Your task to perform on an android device: turn off priority inbox in the gmail app Image 0: 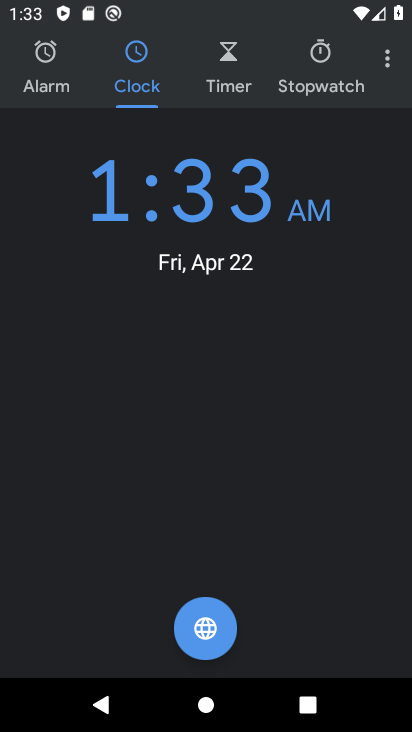
Step 0: press home button
Your task to perform on an android device: turn off priority inbox in the gmail app Image 1: 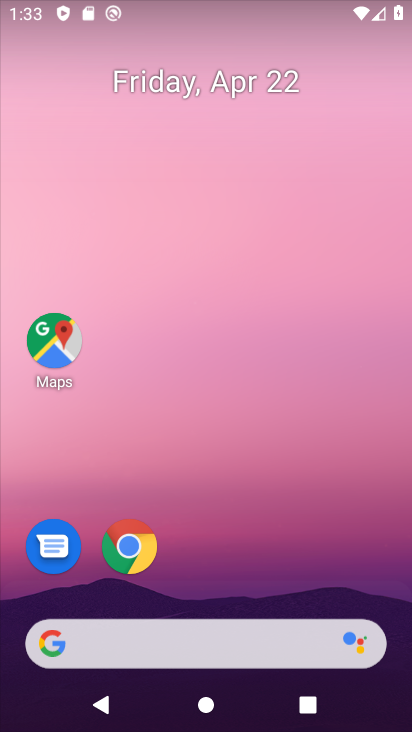
Step 1: drag from (286, 550) to (268, 9)
Your task to perform on an android device: turn off priority inbox in the gmail app Image 2: 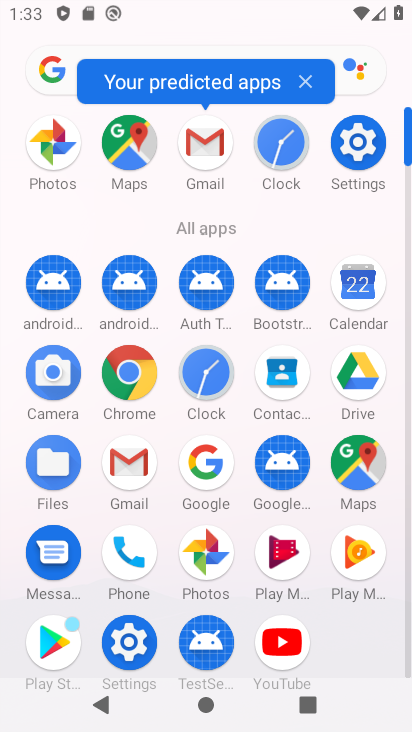
Step 2: drag from (204, 289) to (203, 183)
Your task to perform on an android device: turn off priority inbox in the gmail app Image 3: 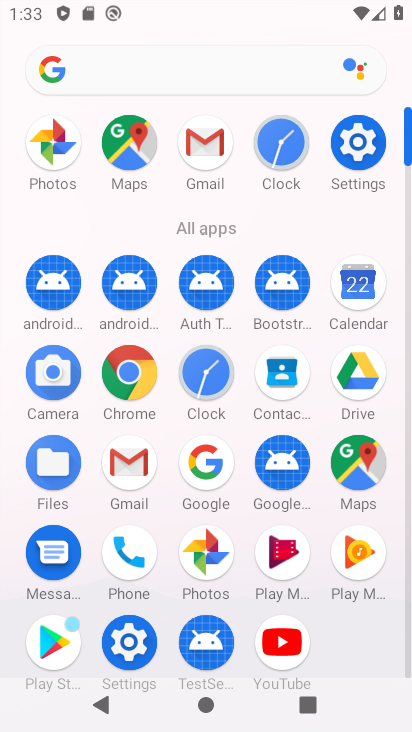
Step 3: click (134, 481)
Your task to perform on an android device: turn off priority inbox in the gmail app Image 4: 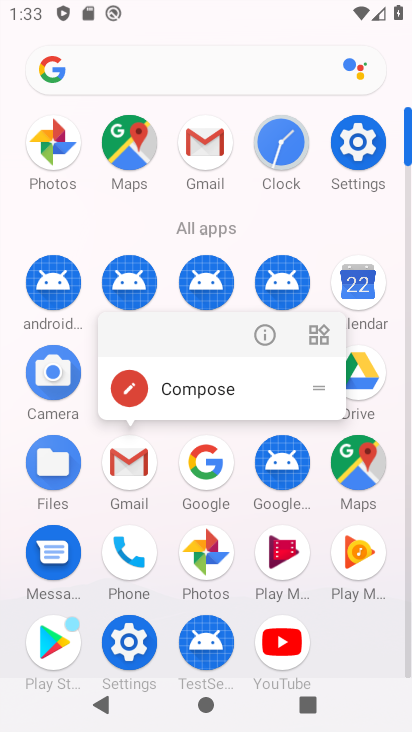
Step 4: click (134, 481)
Your task to perform on an android device: turn off priority inbox in the gmail app Image 5: 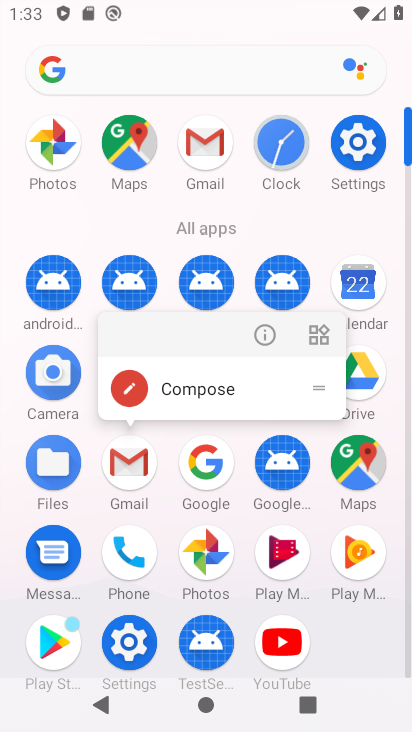
Step 5: click (133, 481)
Your task to perform on an android device: turn off priority inbox in the gmail app Image 6: 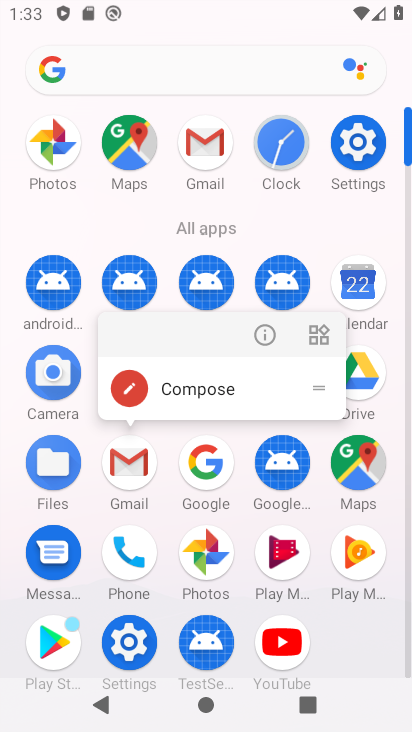
Step 6: click (133, 481)
Your task to perform on an android device: turn off priority inbox in the gmail app Image 7: 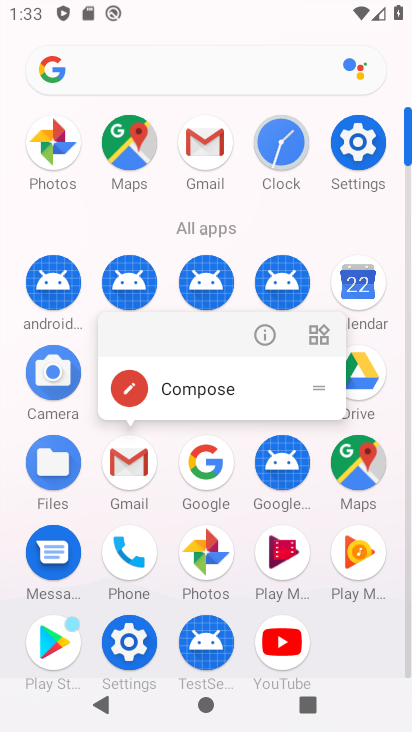
Step 7: click (126, 496)
Your task to perform on an android device: turn off priority inbox in the gmail app Image 8: 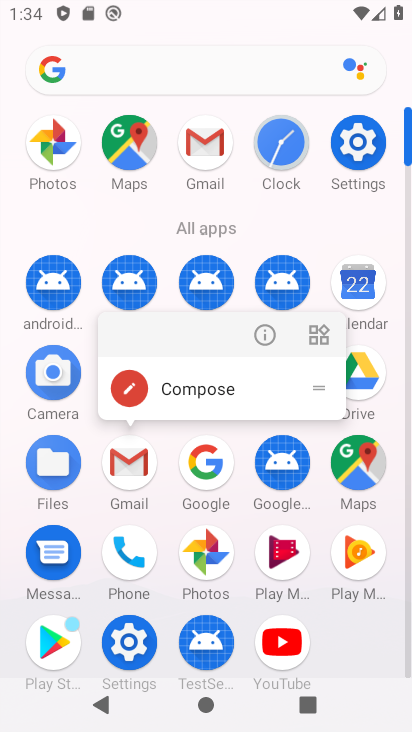
Step 8: click (129, 496)
Your task to perform on an android device: turn off priority inbox in the gmail app Image 9: 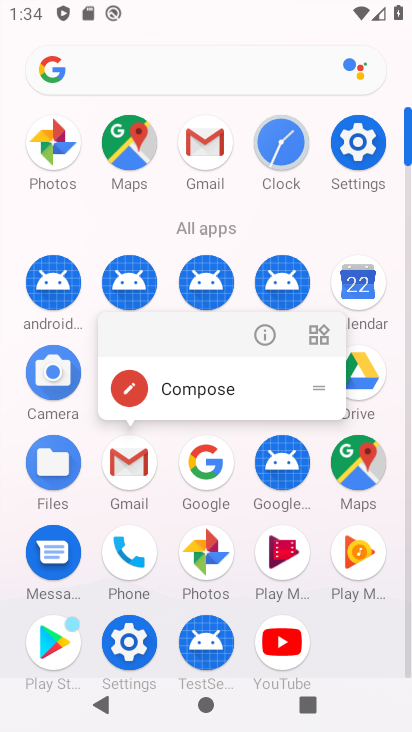
Step 9: click (137, 488)
Your task to perform on an android device: turn off priority inbox in the gmail app Image 10: 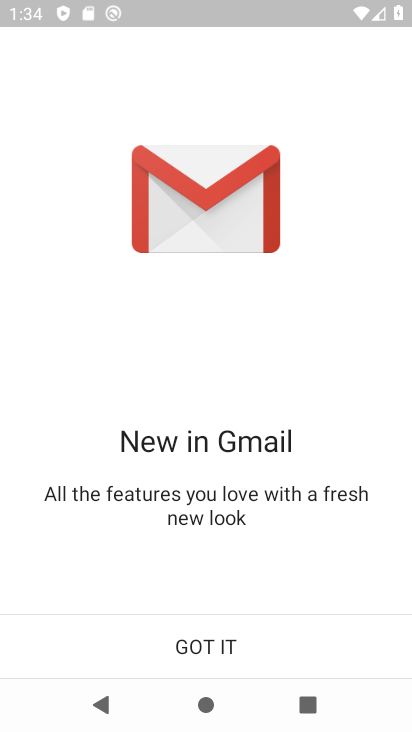
Step 10: click (221, 653)
Your task to perform on an android device: turn off priority inbox in the gmail app Image 11: 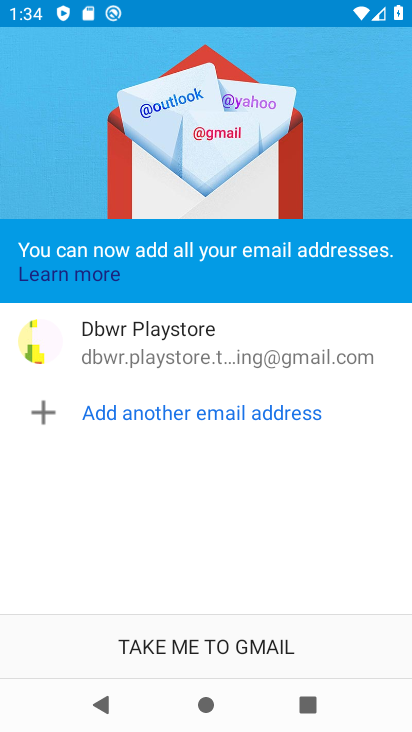
Step 11: click (241, 627)
Your task to perform on an android device: turn off priority inbox in the gmail app Image 12: 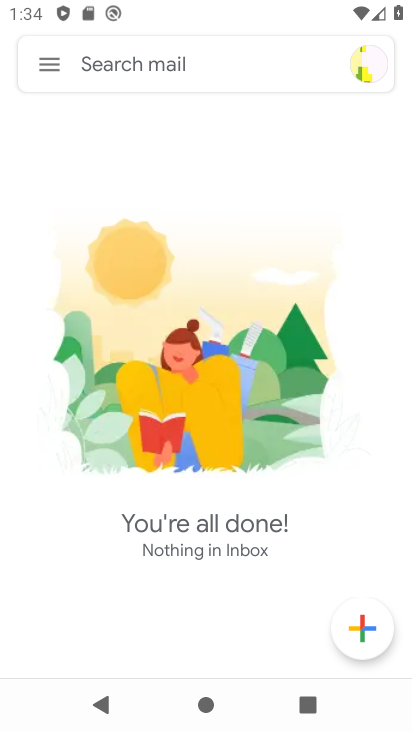
Step 12: click (53, 69)
Your task to perform on an android device: turn off priority inbox in the gmail app Image 13: 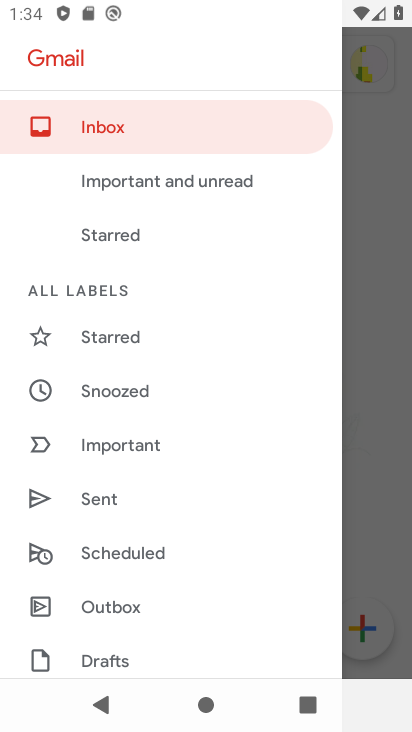
Step 13: drag from (128, 576) to (214, 162)
Your task to perform on an android device: turn off priority inbox in the gmail app Image 14: 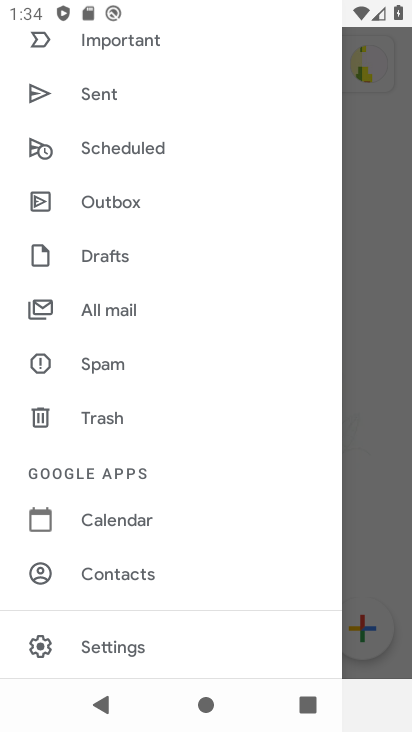
Step 14: drag from (173, 490) to (158, 279)
Your task to perform on an android device: turn off priority inbox in the gmail app Image 15: 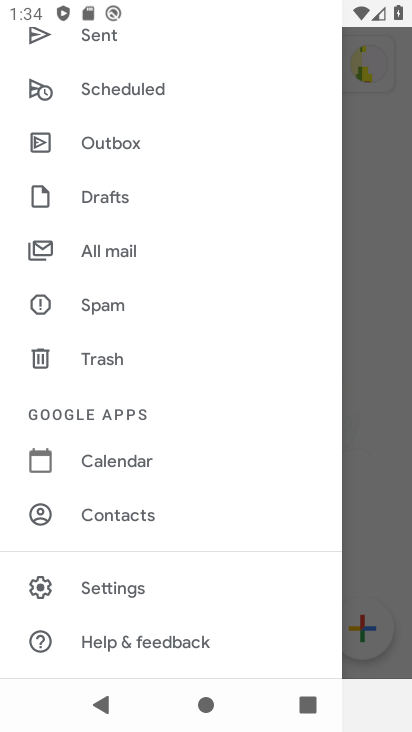
Step 15: click (138, 591)
Your task to perform on an android device: turn off priority inbox in the gmail app Image 16: 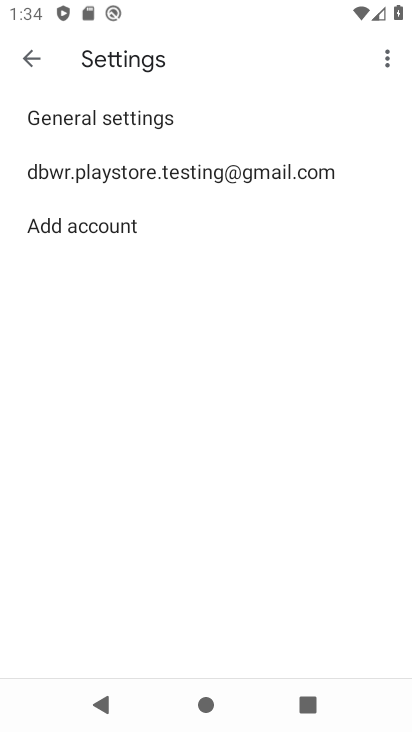
Step 16: click (320, 185)
Your task to perform on an android device: turn off priority inbox in the gmail app Image 17: 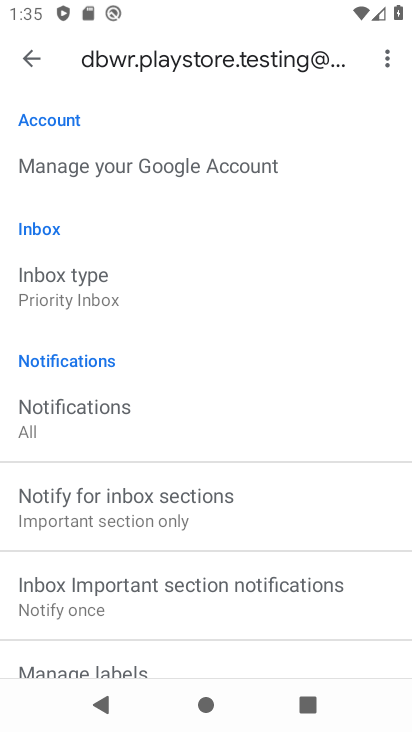
Step 17: click (143, 290)
Your task to perform on an android device: turn off priority inbox in the gmail app Image 18: 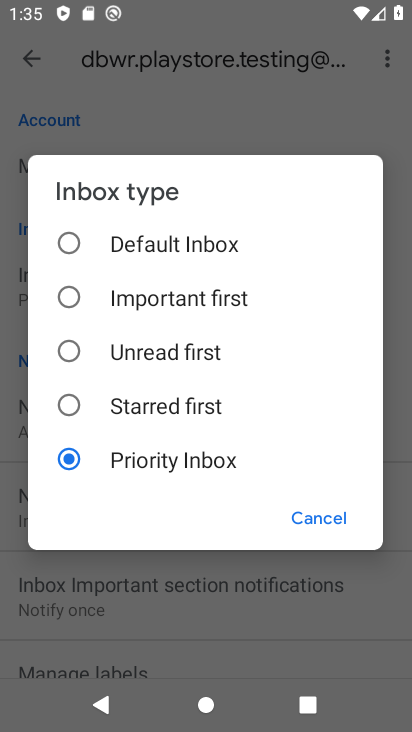
Step 18: click (77, 247)
Your task to perform on an android device: turn off priority inbox in the gmail app Image 19: 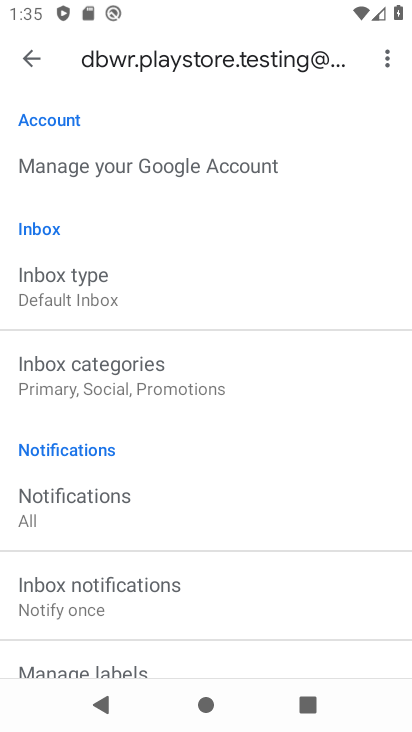
Step 19: task complete